Your task to perform on an android device: Open Chrome and go to the settings page Image 0: 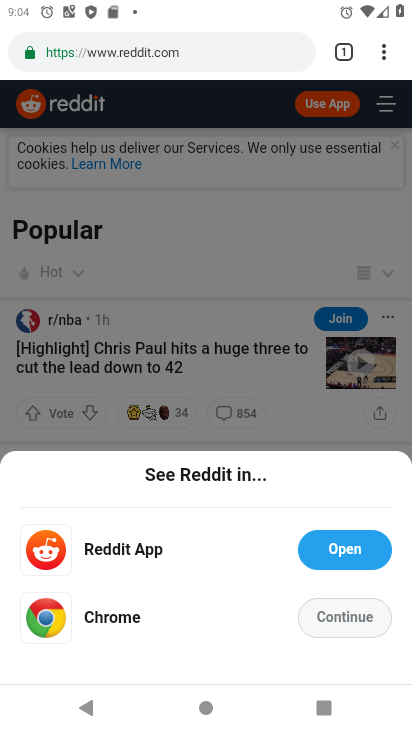
Step 0: drag from (386, 45) to (210, 607)
Your task to perform on an android device: Open Chrome and go to the settings page Image 1: 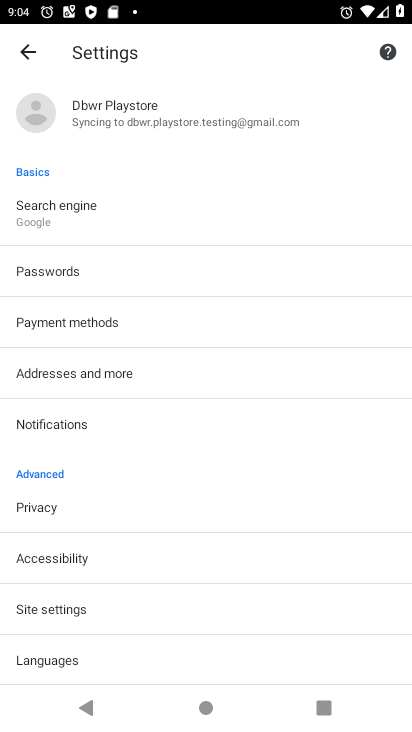
Step 1: task complete